Your task to perform on an android device: Go to calendar. Show me events next week Image 0: 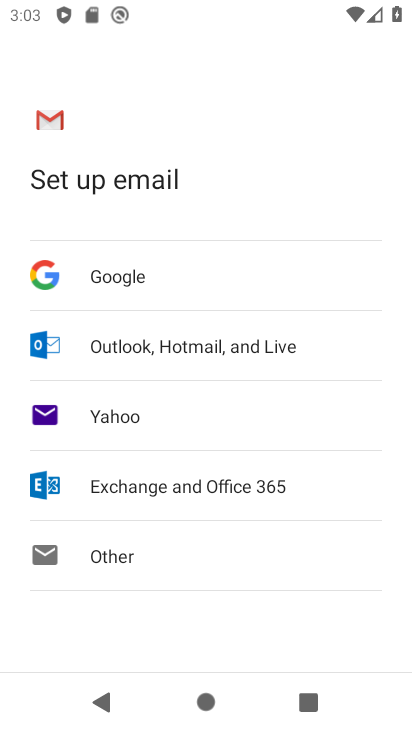
Step 0: press back button
Your task to perform on an android device: Go to calendar. Show me events next week Image 1: 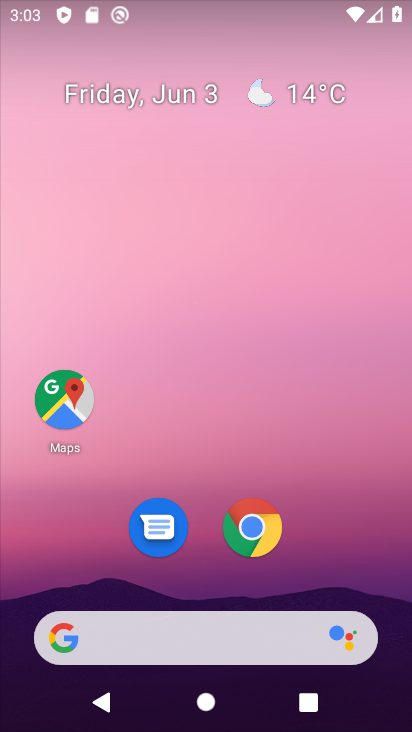
Step 1: drag from (331, 552) to (276, 50)
Your task to perform on an android device: Go to calendar. Show me events next week Image 2: 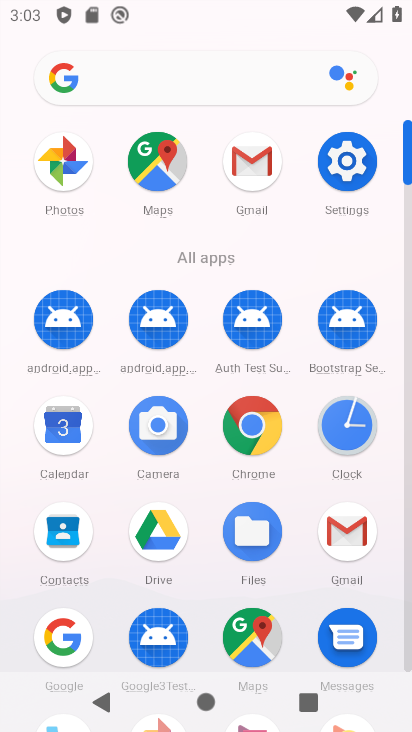
Step 2: click (62, 428)
Your task to perform on an android device: Go to calendar. Show me events next week Image 3: 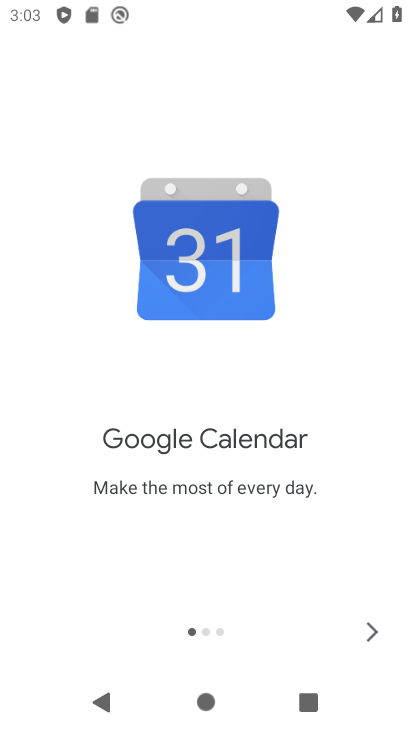
Step 3: click (368, 632)
Your task to perform on an android device: Go to calendar. Show me events next week Image 4: 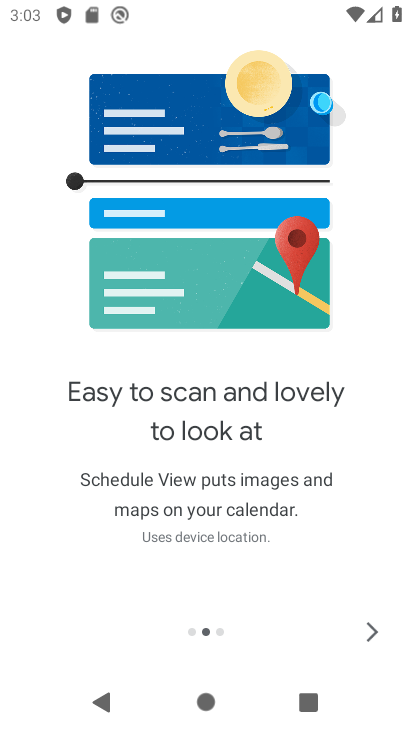
Step 4: click (368, 632)
Your task to perform on an android device: Go to calendar. Show me events next week Image 5: 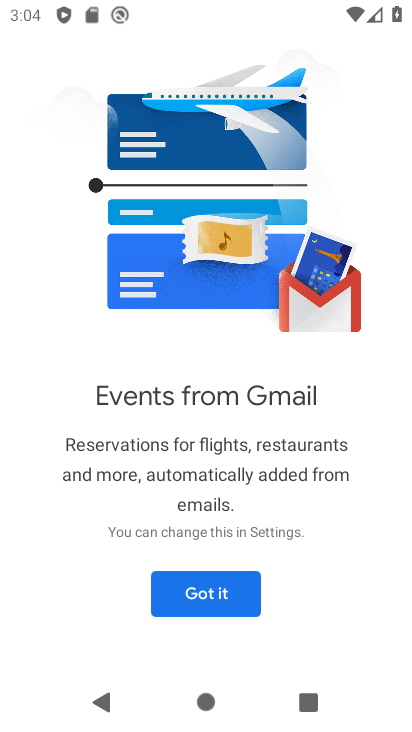
Step 5: click (205, 593)
Your task to perform on an android device: Go to calendar. Show me events next week Image 6: 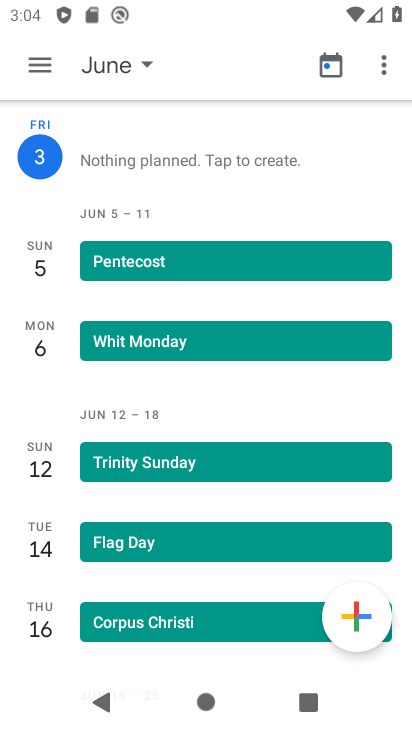
Step 6: click (148, 62)
Your task to perform on an android device: Go to calendar. Show me events next week Image 7: 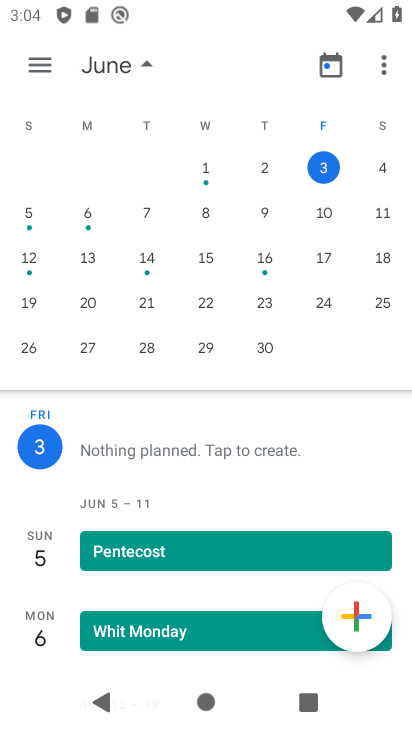
Step 7: click (97, 205)
Your task to perform on an android device: Go to calendar. Show me events next week Image 8: 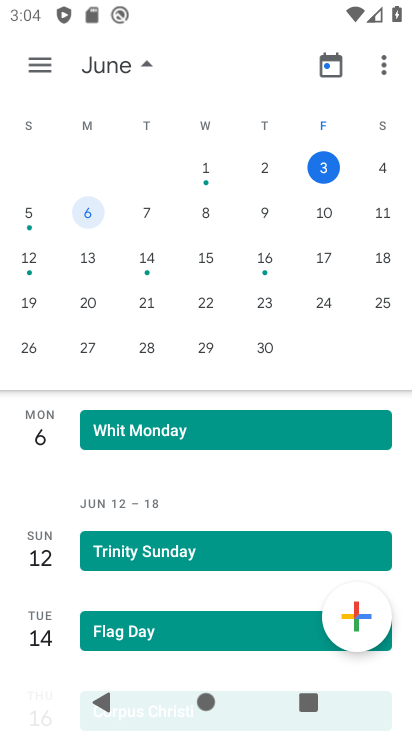
Step 8: click (42, 49)
Your task to perform on an android device: Go to calendar. Show me events next week Image 9: 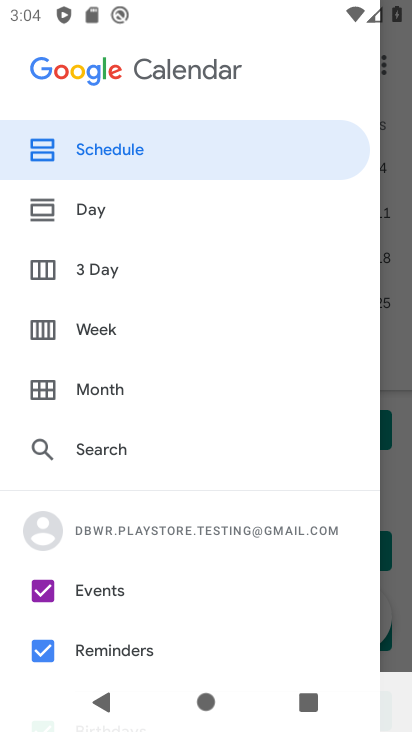
Step 9: click (115, 319)
Your task to perform on an android device: Go to calendar. Show me events next week Image 10: 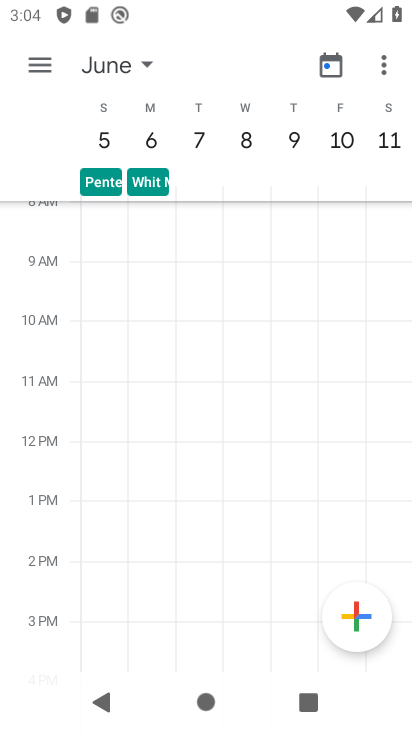
Step 10: task complete